Your task to perform on an android device: open chrome privacy settings Image 0: 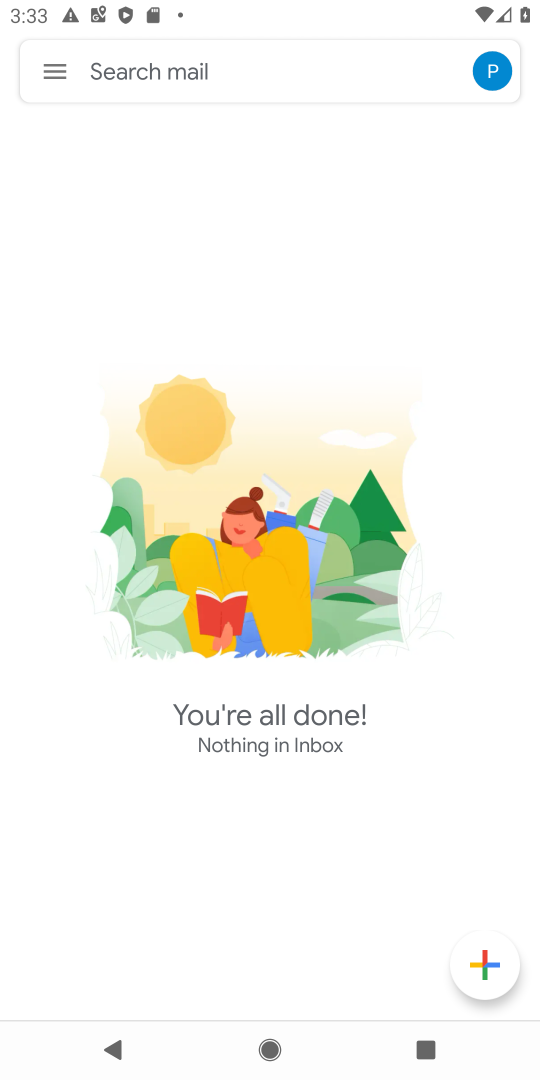
Step 0: press back button
Your task to perform on an android device: open chrome privacy settings Image 1: 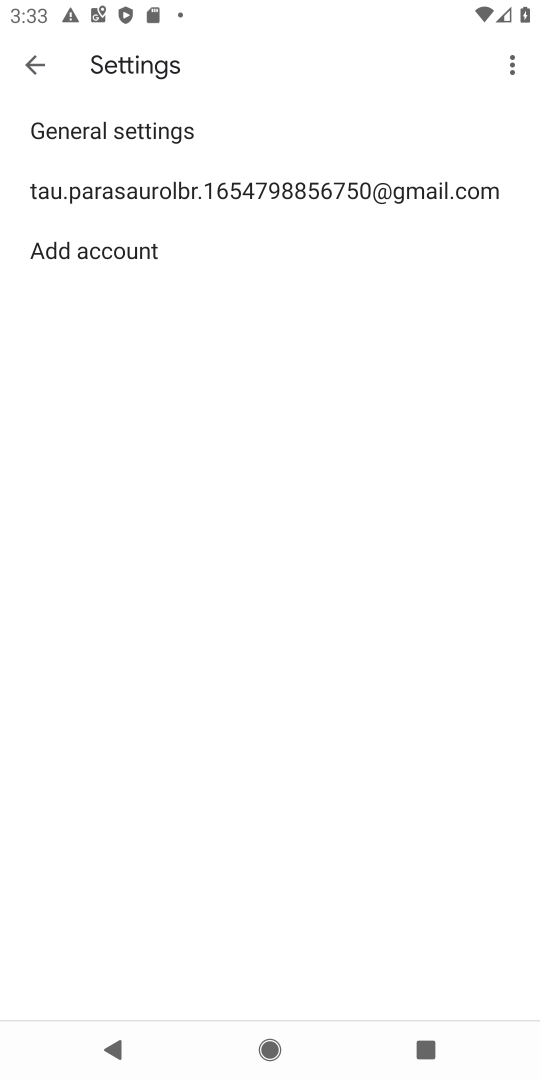
Step 1: press back button
Your task to perform on an android device: open chrome privacy settings Image 2: 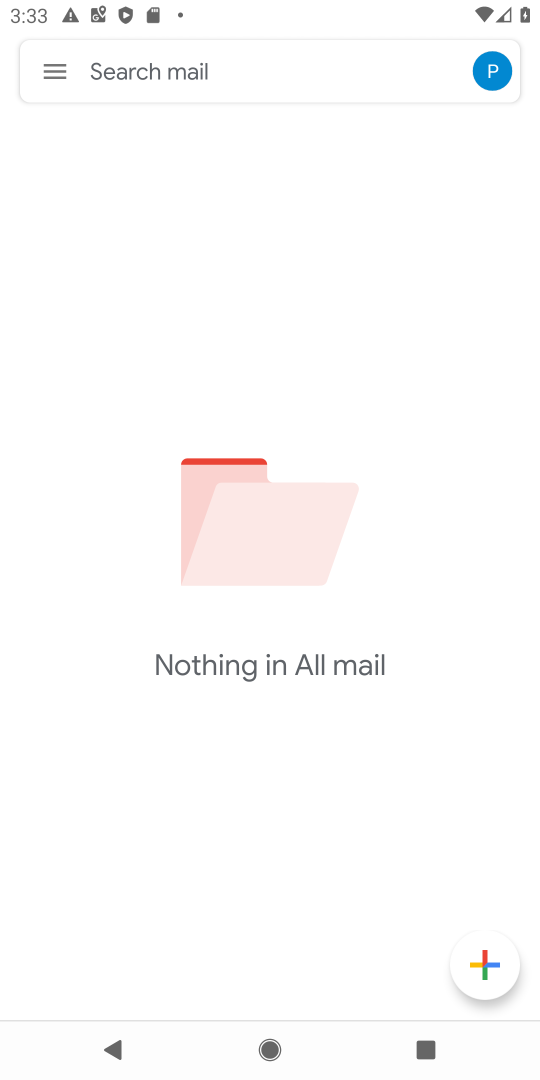
Step 2: press back button
Your task to perform on an android device: open chrome privacy settings Image 3: 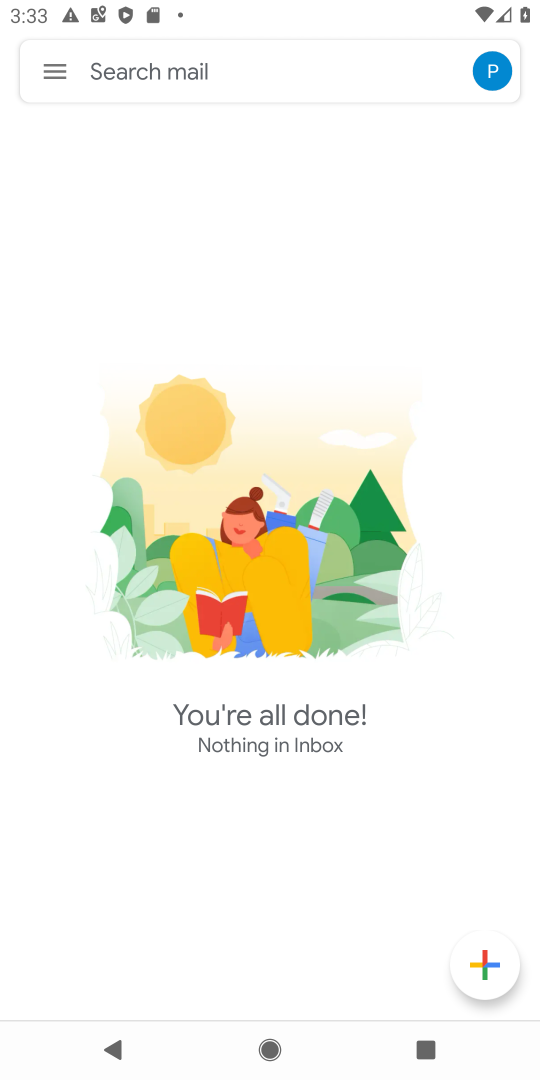
Step 3: press back button
Your task to perform on an android device: open chrome privacy settings Image 4: 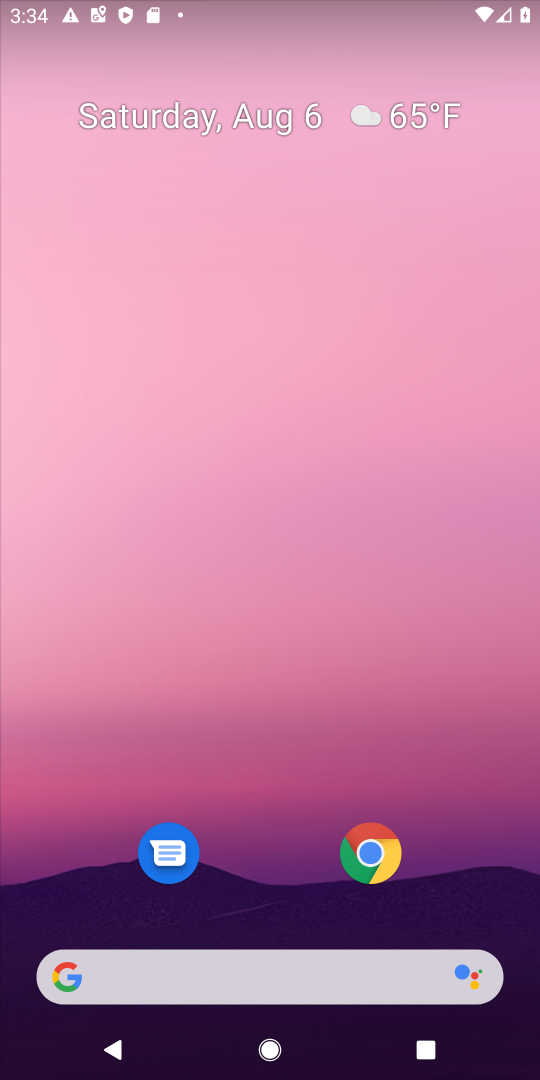
Step 4: click (358, 857)
Your task to perform on an android device: open chrome privacy settings Image 5: 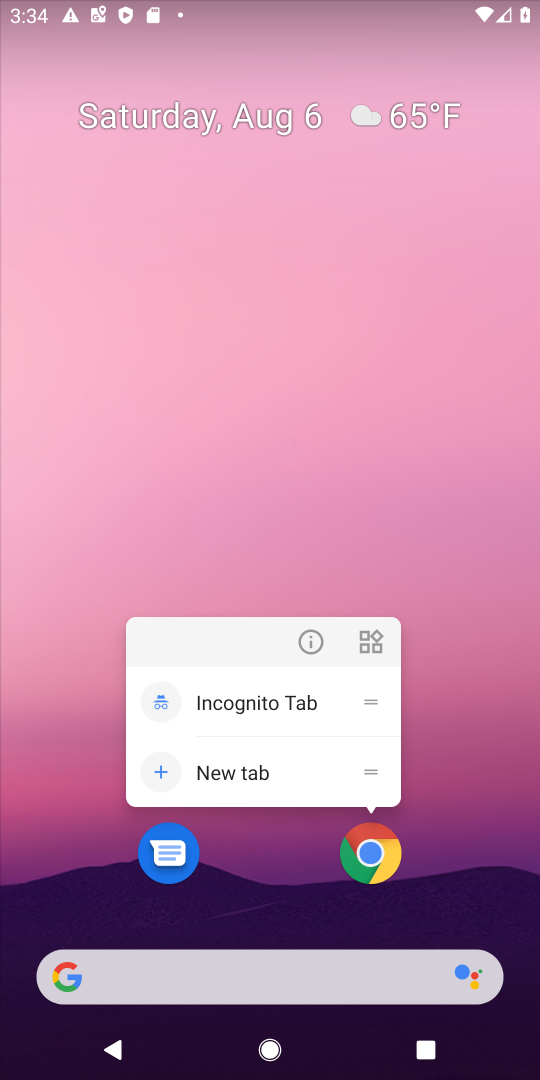
Step 5: click (370, 857)
Your task to perform on an android device: open chrome privacy settings Image 6: 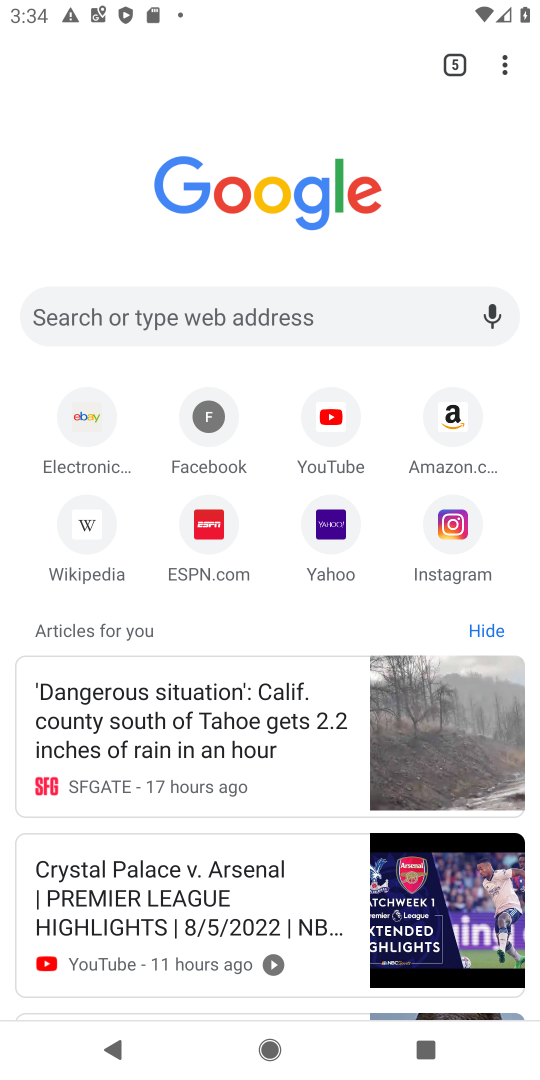
Step 6: drag from (502, 63) to (338, 544)
Your task to perform on an android device: open chrome privacy settings Image 7: 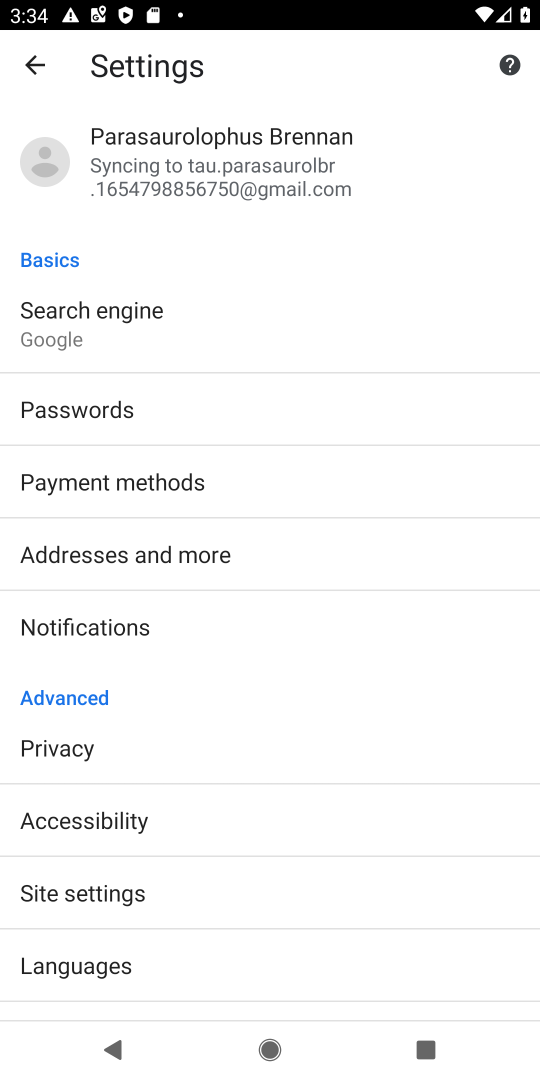
Step 7: click (82, 747)
Your task to perform on an android device: open chrome privacy settings Image 8: 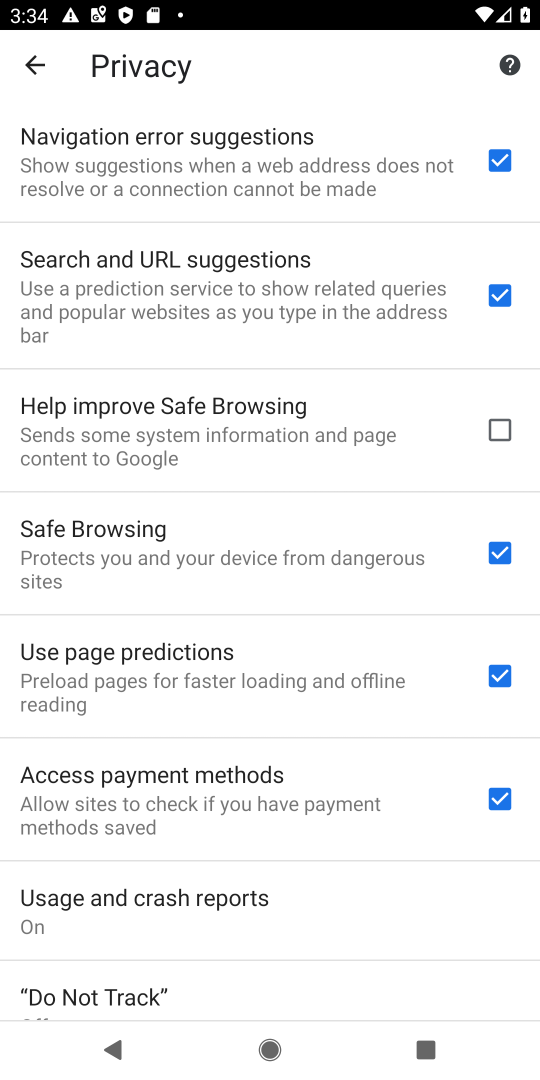
Step 8: task complete